Your task to perform on an android device: add a label to a message in the gmail app Image 0: 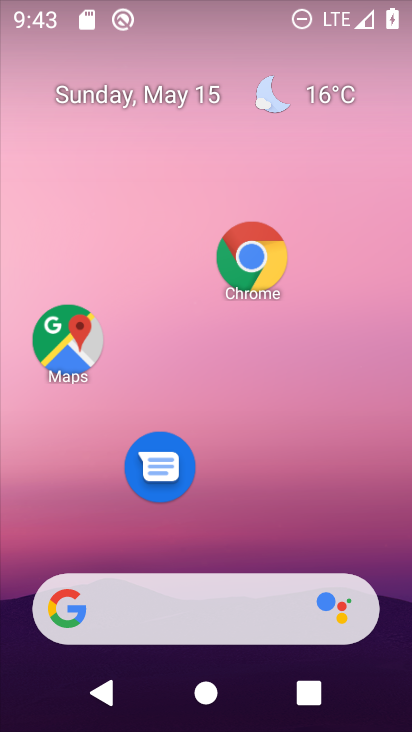
Step 0: drag from (254, 331) to (275, 7)
Your task to perform on an android device: add a label to a message in the gmail app Image 1: 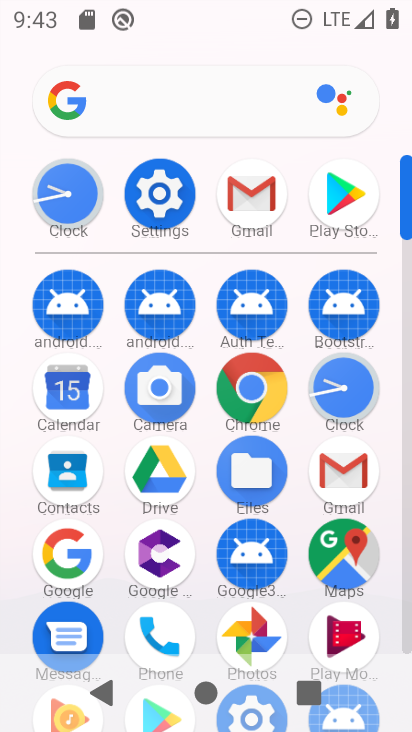
Step 1: click (260, 221)
Your task to perform on an android device: add a label to a message in the gmail app Image 2: 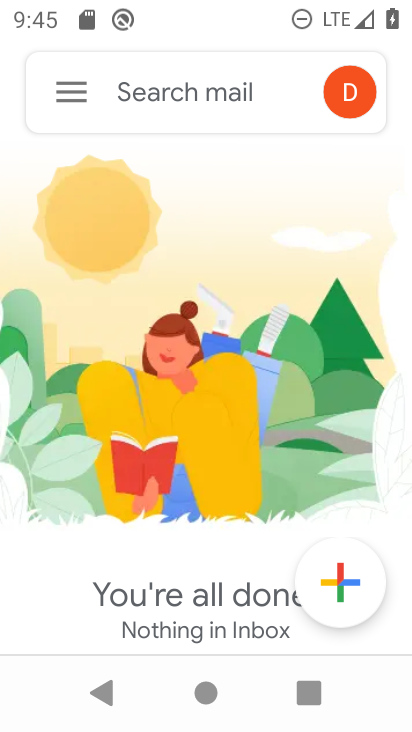
Step 2: task complete